Your task to perform on an android device: Open Yahoo.com Image 0: 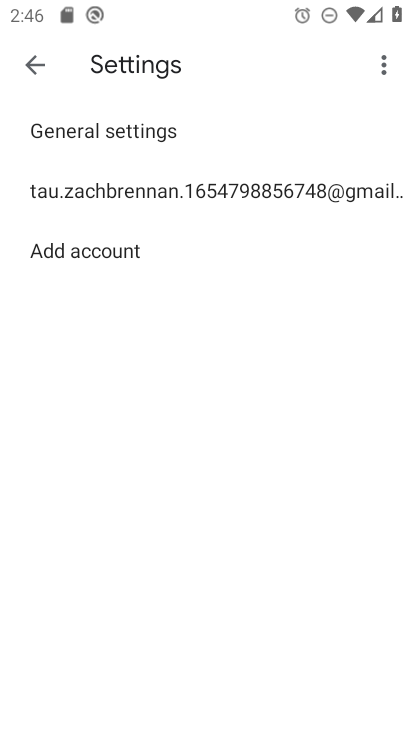
Step 0: press home button
Your task to perform on an android device: Open Yahoo.com Image 1: 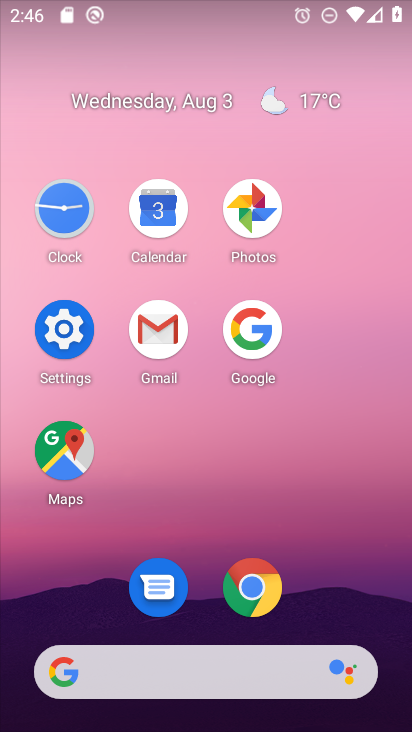
Step 1: click (241, 587)
Your task to perform on an android device: Open Yahoo.com Image 2: 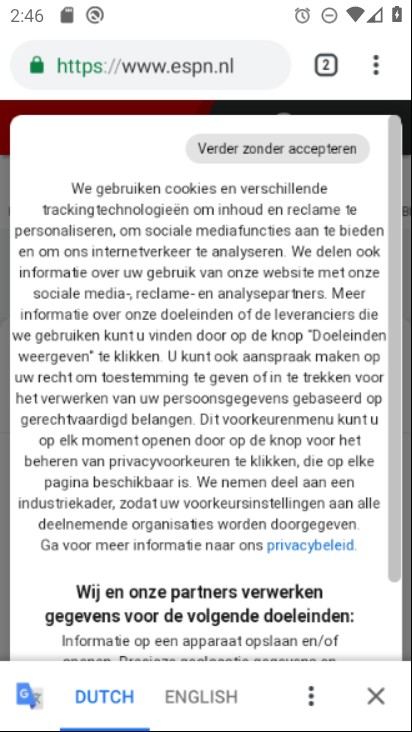
Step 2: click (330, 72)
Your task to perform on an android device: Open Yahoo.com Image 3: 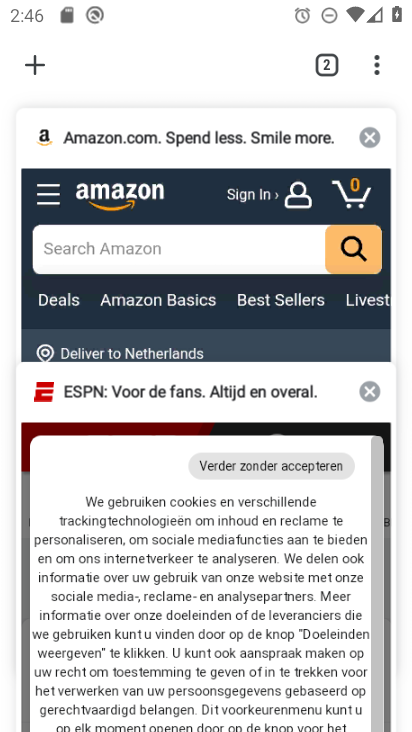
Step 3: click (27, 66)
Your task to perform on an android device: Open Yahoo.com Image 4: 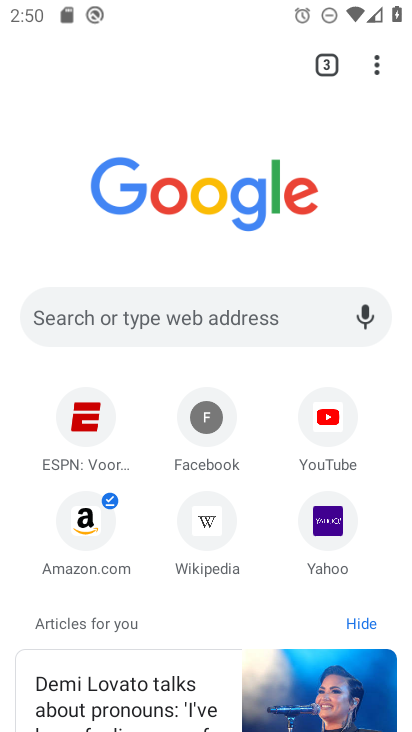
Step 4: press home button
Your task to perform on an android device: Open Yahoo.com Image 5: 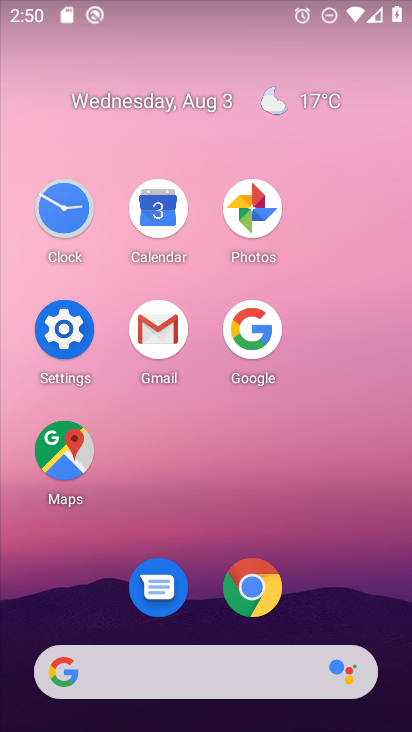
Step 5: click (261, 595)
Your task to perform on an android device: Open Yahoo.com Image 6: 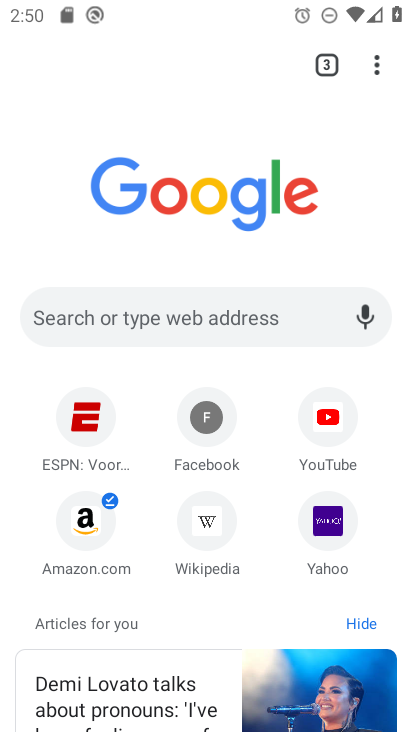
Step 6: click (317, 538)
Your task to perform on an android device: Open Yahoo.com Image 7: 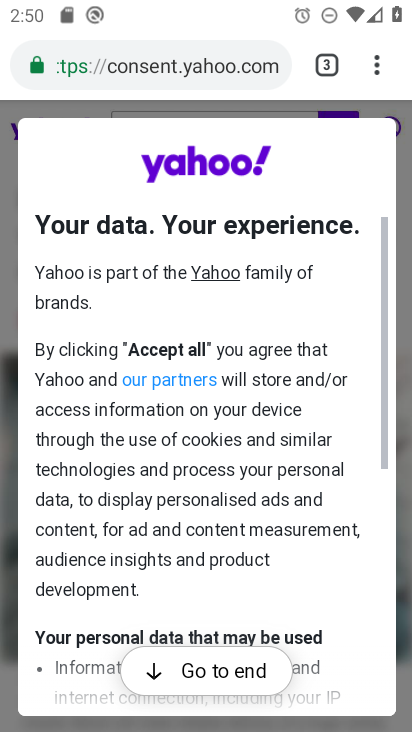
Step 7: task complete